Your task to perform on an android device: change your default location settings in chrome Image 0: 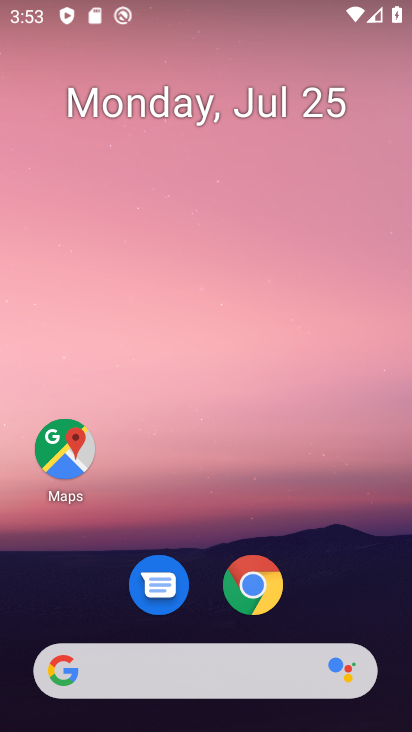
Step 0: drag from (334, 572) to (336, 375)
Your task to perform on an android device: change your default location settings in chrome Image 1: 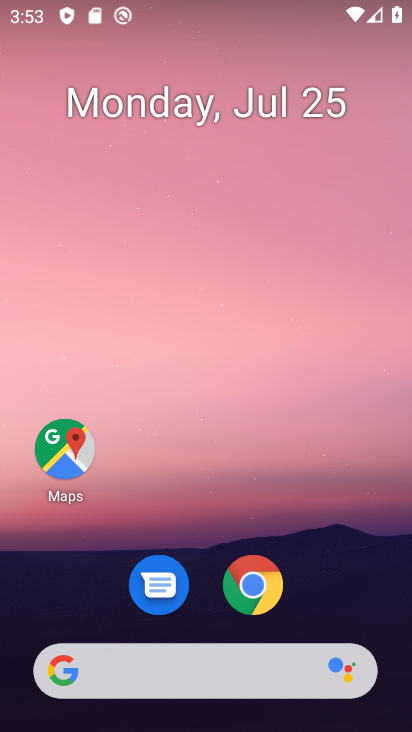
Step 1: click (252, 583)
Your task to perform on an android device: change your default location settings in chrome Image 2: 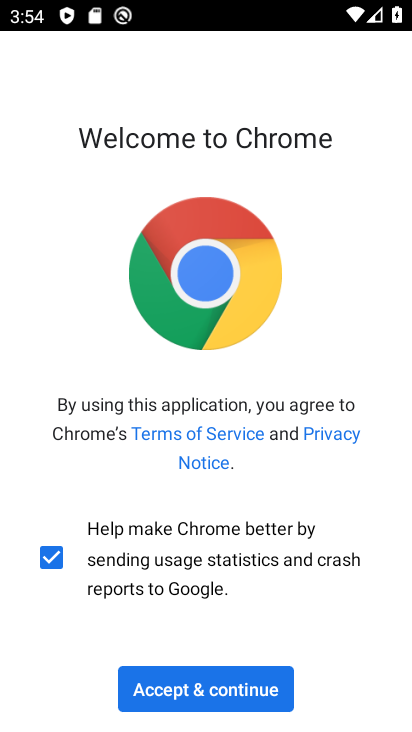
Step 2: click (249, 687)
Your task to perform on an android device: change your default location settings in chrome Image 3: 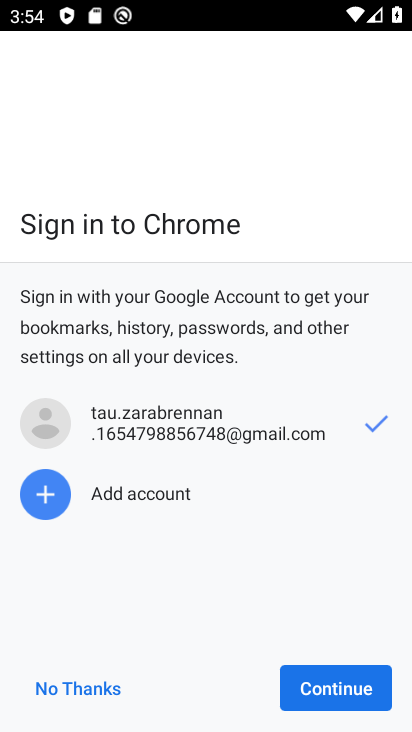
Step 3: click (299, 689)
Your task to perform on an android device: change your default location settings in chrome Image 4: 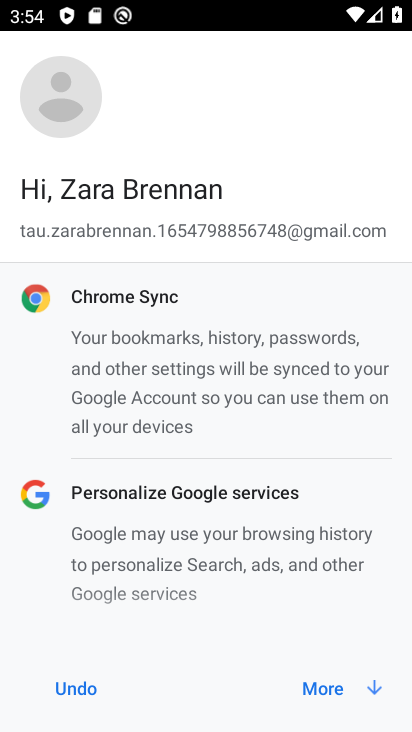
Step 4: click (299, 689)
Your task to perform on an android device: change your default location settings in chrome Image 5: 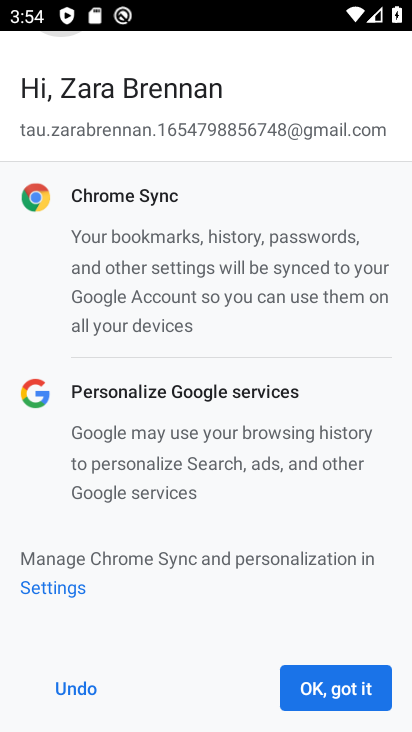
Step 5: click (299, 689)
Your task to perform on an android device: change your default location settings in chrome Image 6: 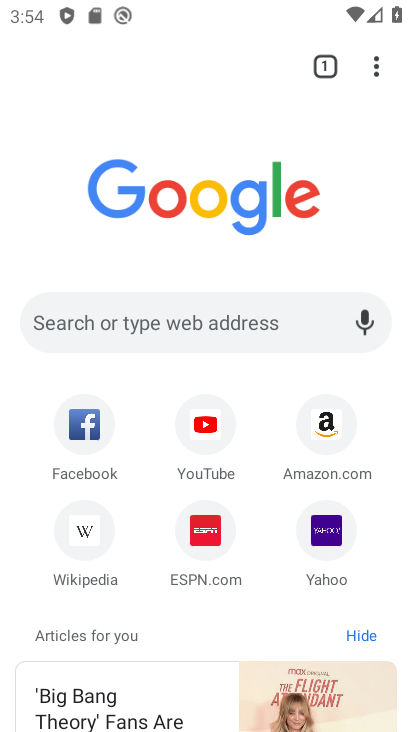
Step 6: drag from (261, 423) to (264, 136)
Your task to perform on an android device: change your default location settings in chrome Image 7: 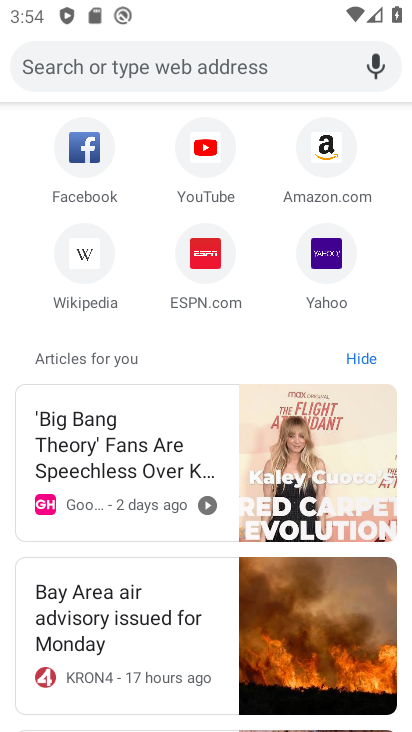
Step 7: drag from (266, 144) to (276, 493)
Your task to perform on an android device: change your default location settings in chrome Image 8: 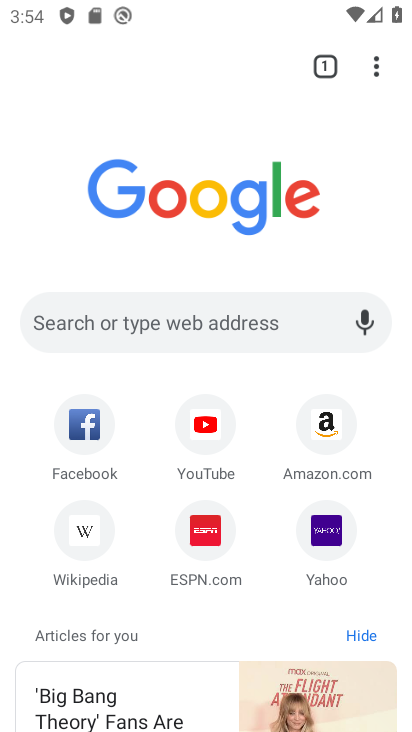
Step 8: click (374, 63)
Your task to perform on an android device: change your default location settings in chrome Image 9: 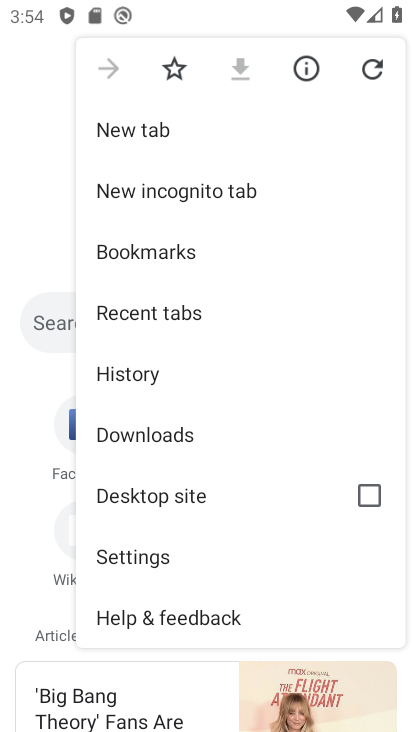
Step 9: click (152, 550)
Your task to perform on an android device: change your default location settings in chrome Image 10: 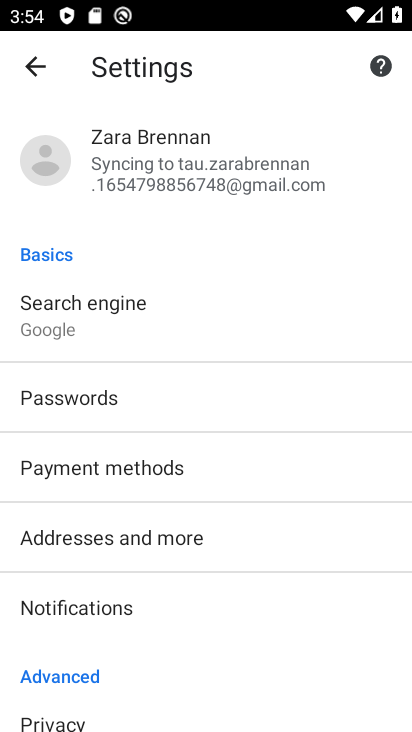
Step 10: drag from (201, 622) to (234, 210)
Your task to perform on an android device: change your default location settings in chrome Image 11: 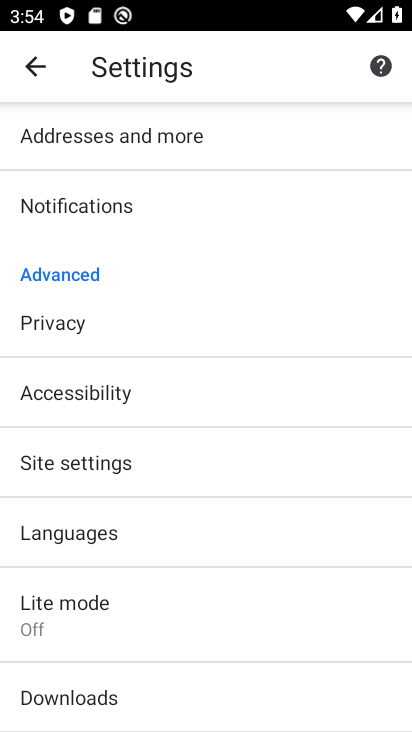
Step 11: click (159, 462)
Your task to perform on an android device: change your default location settings in chrome Image 12: 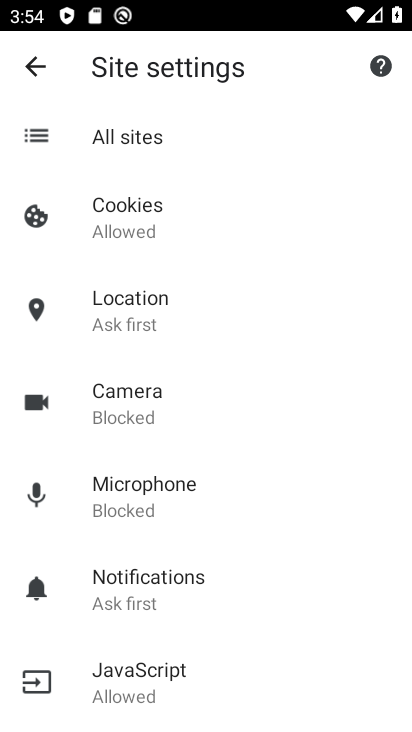
Step 12: click (147, 316)
Your task to perform on an android device: change your default location settings in chrome Image 13: 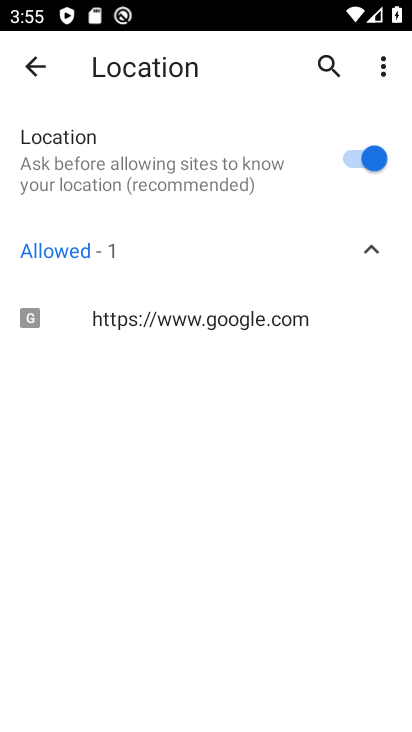
Step 13: click (360, 155)
Your task to perform on an android device: change your default location settings in chrome Image 14: 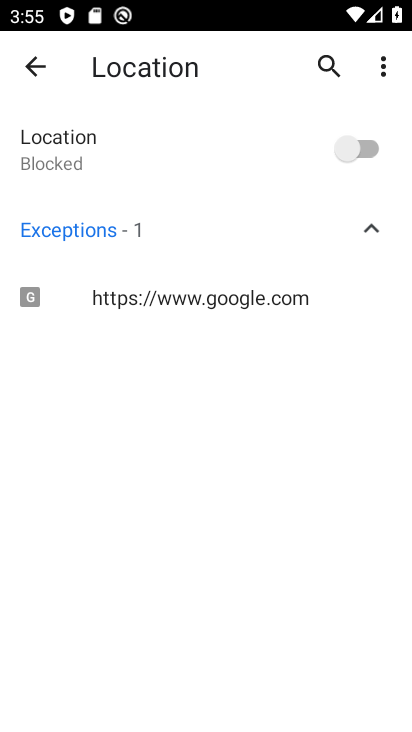
Step 14: task complete